Your task to perform on an android device: Open Wikipedia Image 0: 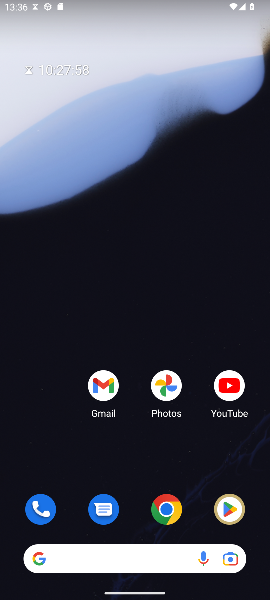
Step 0: press home button
Your task to perform on an android device: Open Wikipedia Image 1: 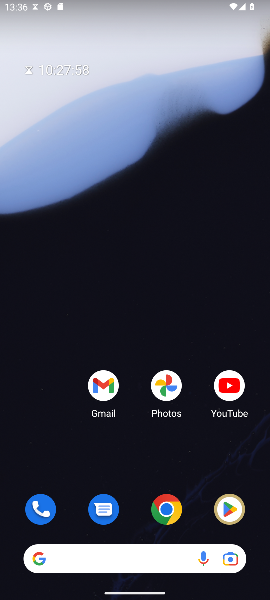
Step 1: drag from (134, 507) to (182, 87)
Your task to perform on an android device: Open Wikipedia Image 2: 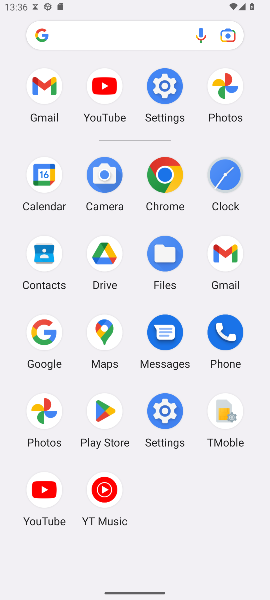
Step 2: click (43, 342)
Your task to perform on an android device: Open Wikipedia Image 3: 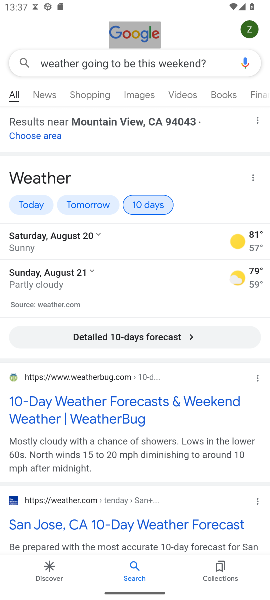
Step 3: click (208, 62)
Your task to perform on an android device: Open Wikipedia Image 4: 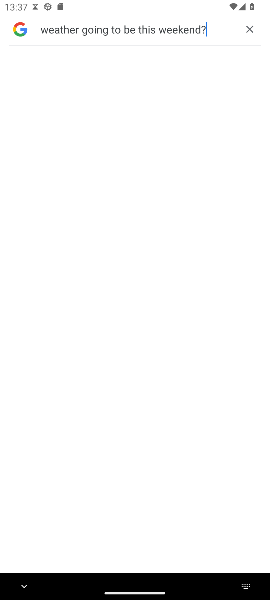
Step 4: press back button
Your task to perform on an android device: Open Wikipedia Image 5: 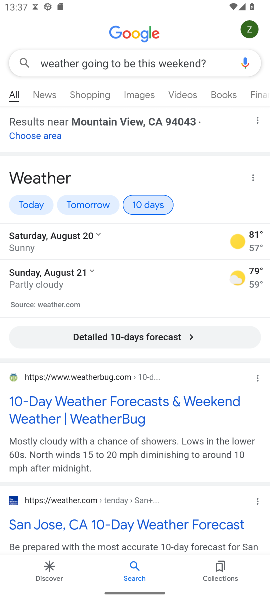
Step 5: click (209, 65)
Your task to perform on an android device: Open Wikipedia Image 6: 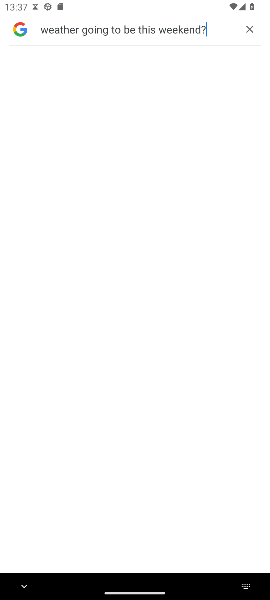
Step 6: click (251, 28)
Your task to perform on an android device: Open Wikipedia Image 7: 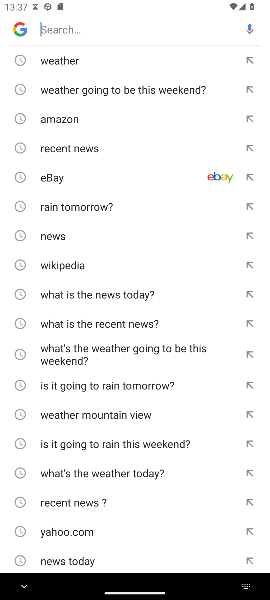
Step 7: type "Wikipedia"
Your task to perform on an android device: Open Wikipedia Image 8: 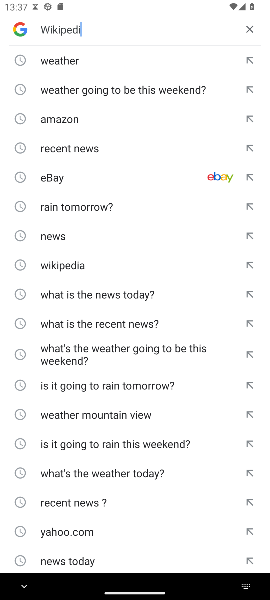
Step 8: press enter
Your task to perform on an android device: Open Wikipedia Image 9: 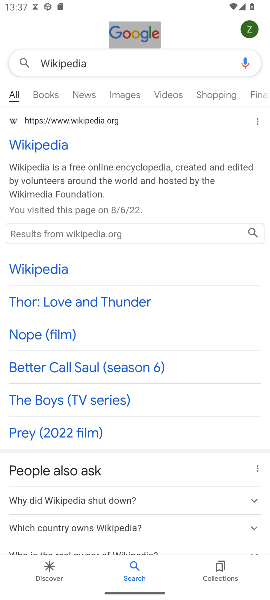
Step 9: click (36, 146)
Your task to perform on an android device: Open Wikipedia Image 10: 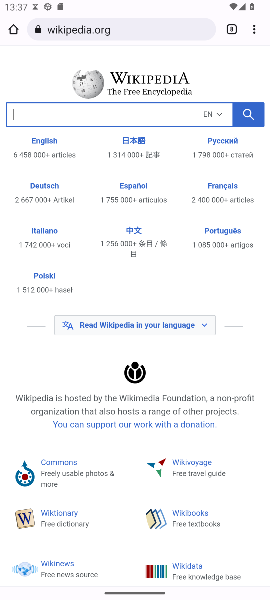
Step 10: task complete